Your task to perform on an android device: uninstall "Facebook Messenger" Image 0: 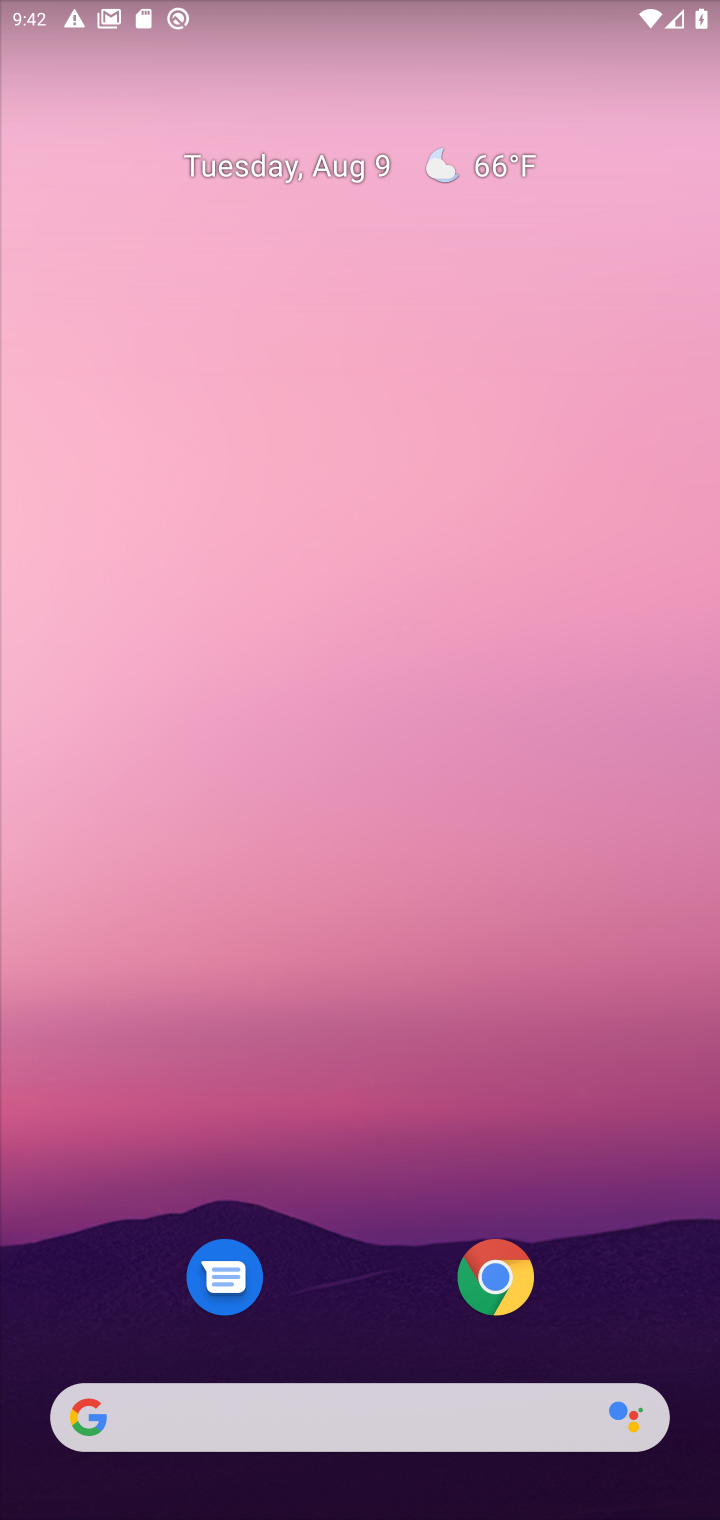
Step 0: drag from (343, 1353) to (156, 155)
Your task to perform on an android device: uninstall "Facebook Messenger" Image 1: 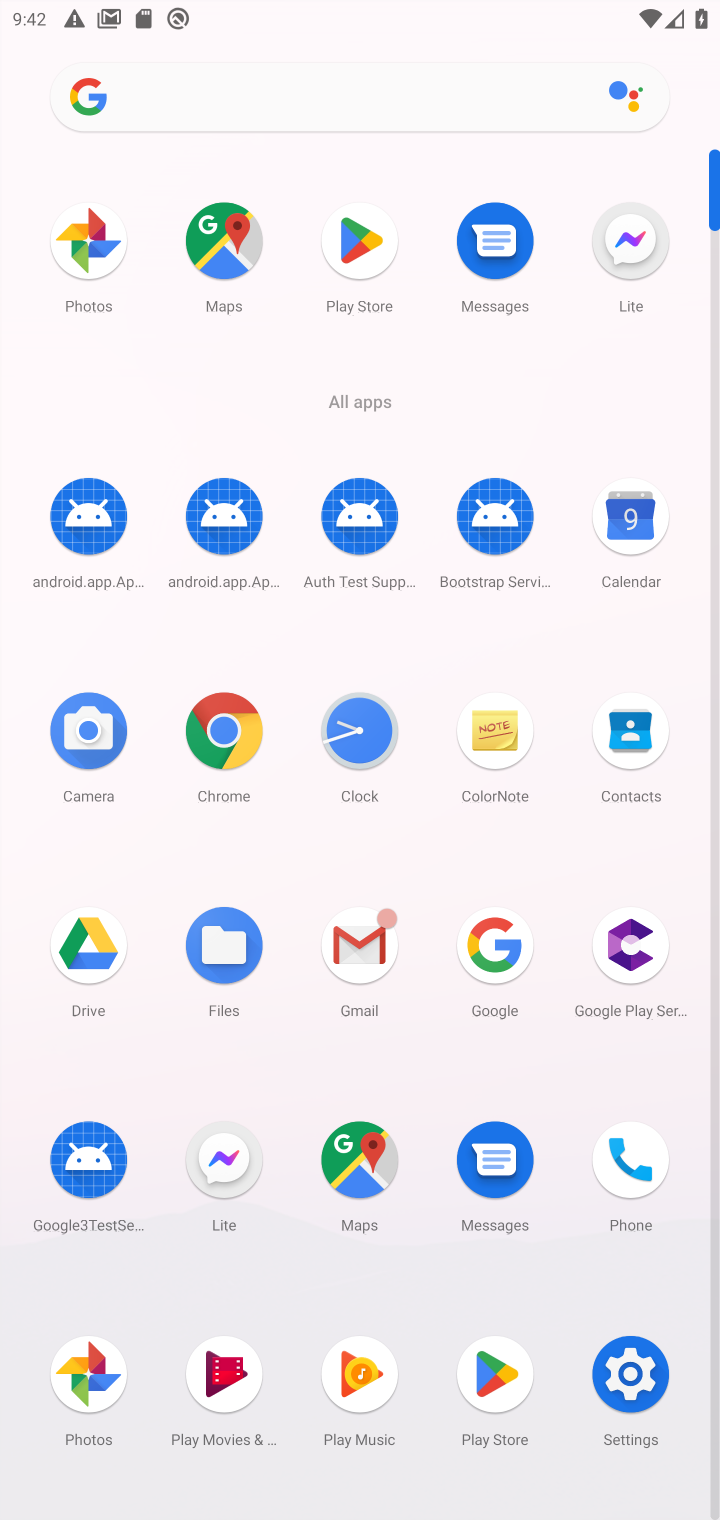
Step 1: click (202, 1173)
Your task to perform on an android device: uninstall "Facebook Messenger" Image 2: 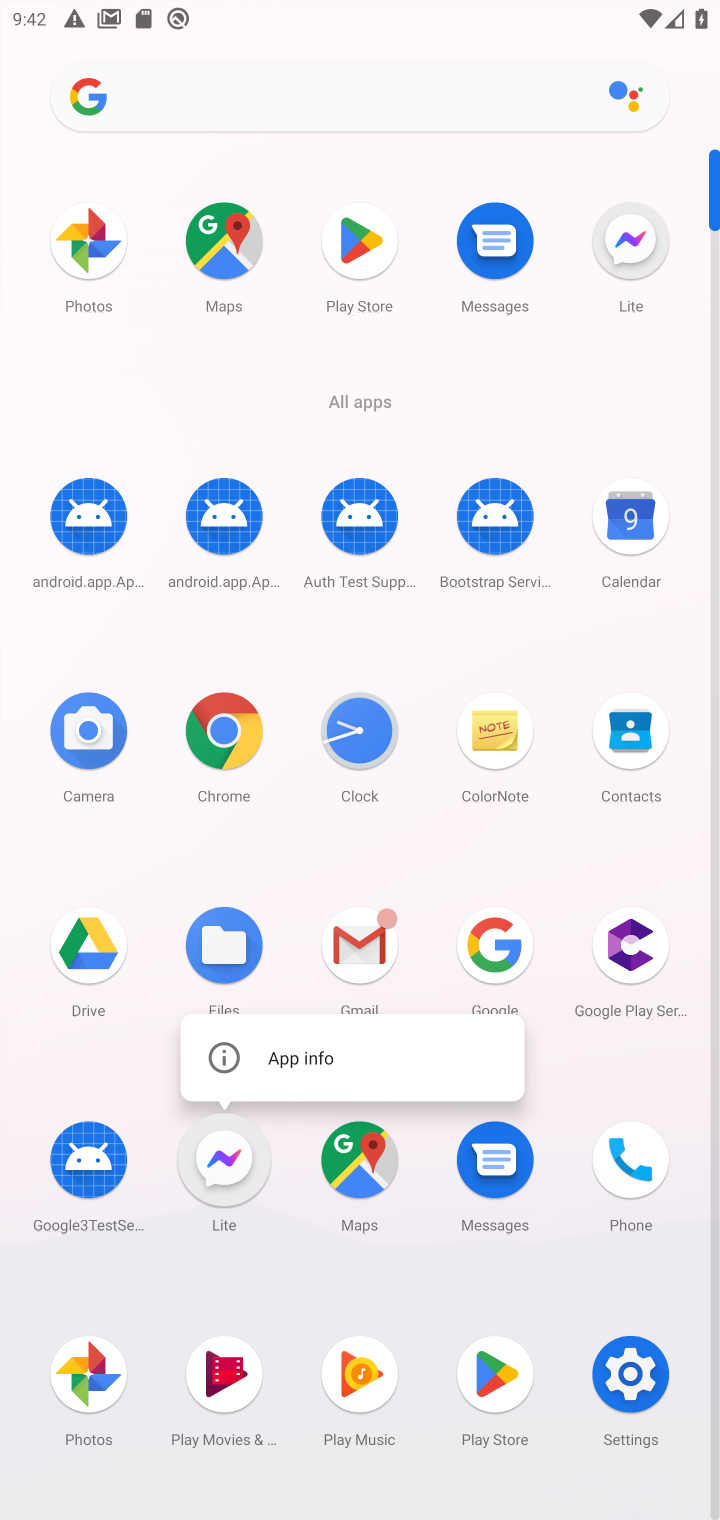
Step 2: click (216, 1081)
Your task to perform on an android device: uninstall "Facebook Messenger" Image 3: 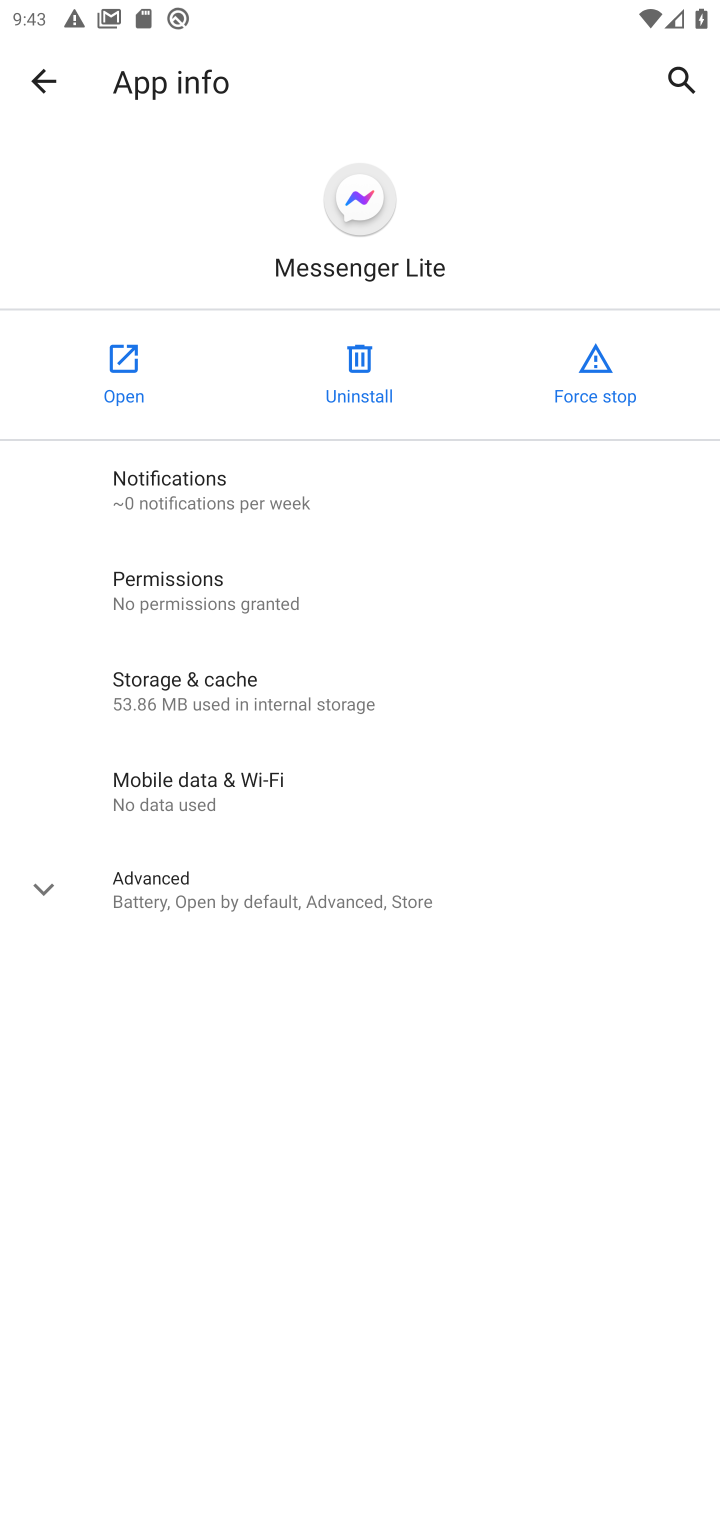
Step 3: click (412, 368)
Your task to perform on an android device: uninstall "Facebook Messenger" Image 4: 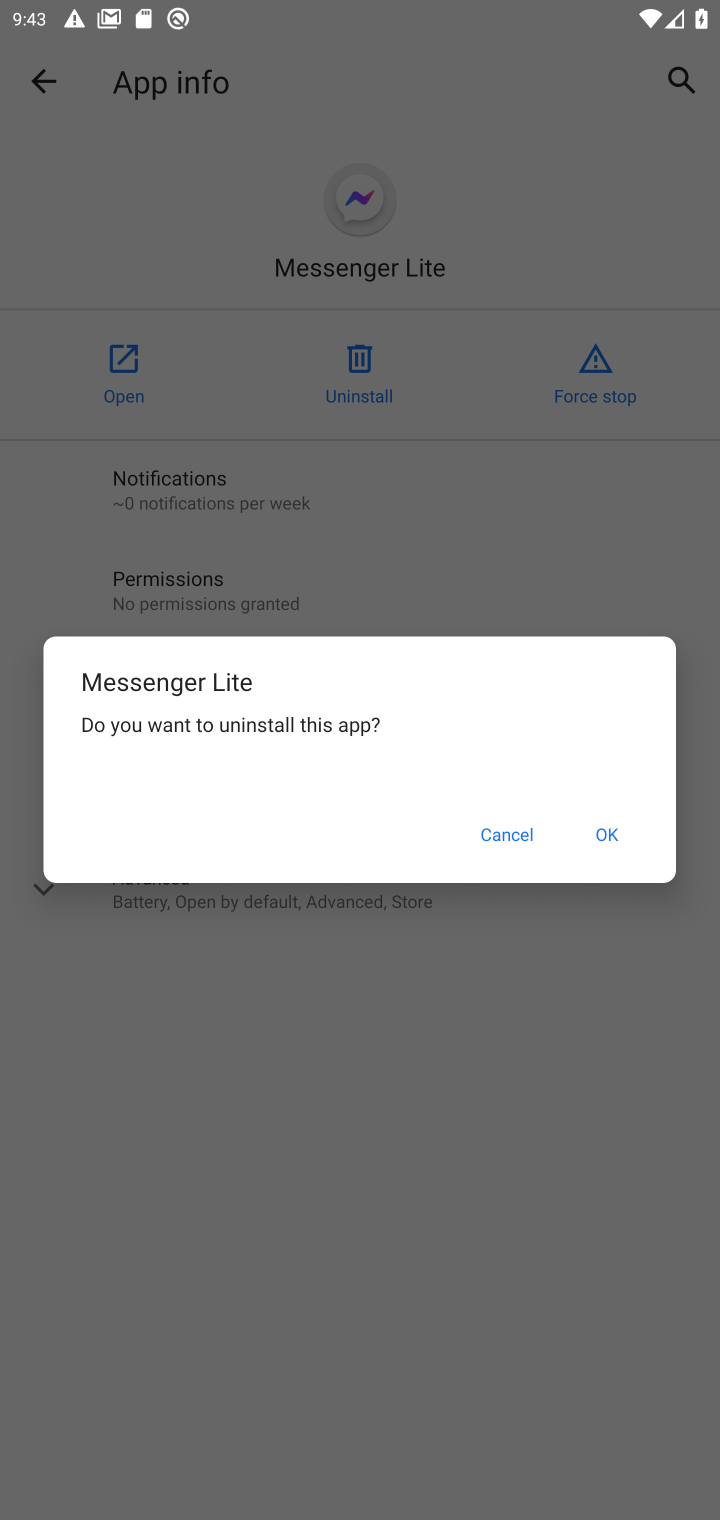
Step 4: click (596, 844)
Your task to perform on an android device: uninstall "Facebook Messenger" Image 5: 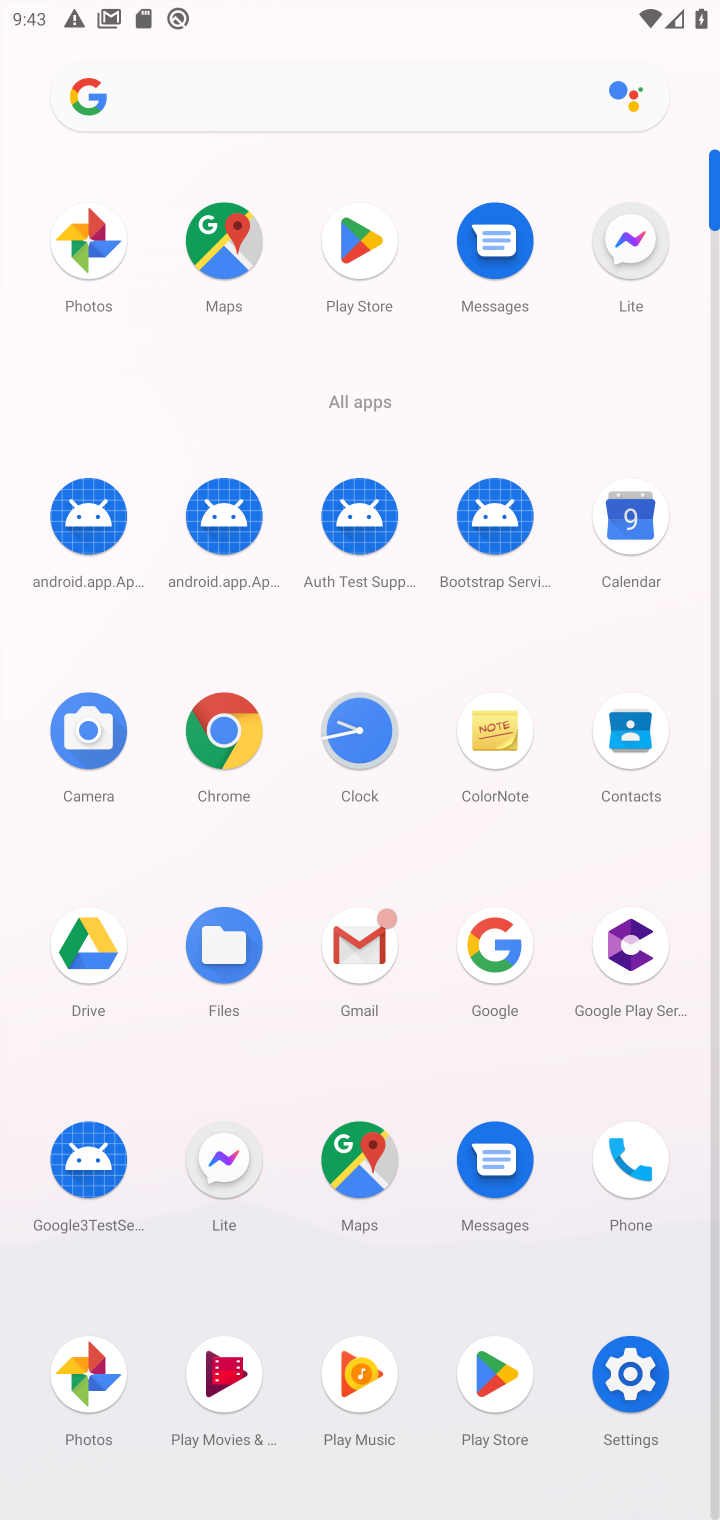
Step 5: task complete